Your task to perform on an android device: Go to accessibility settings Image 0: 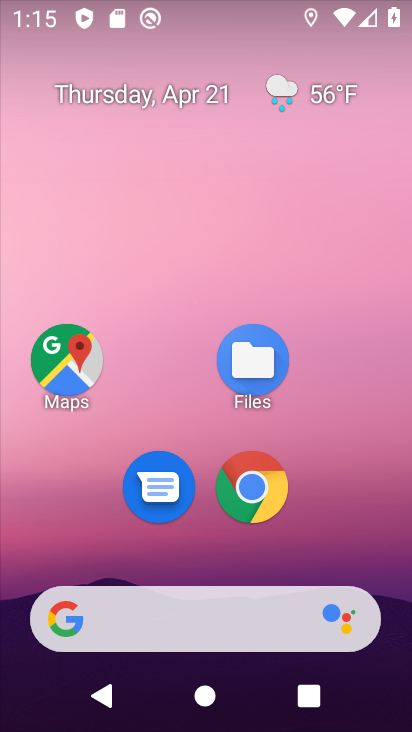
Step 0: drag from (373, 518) to (363, 117)
Your task to perform on an android device: Go to accessibility settings Image 1: 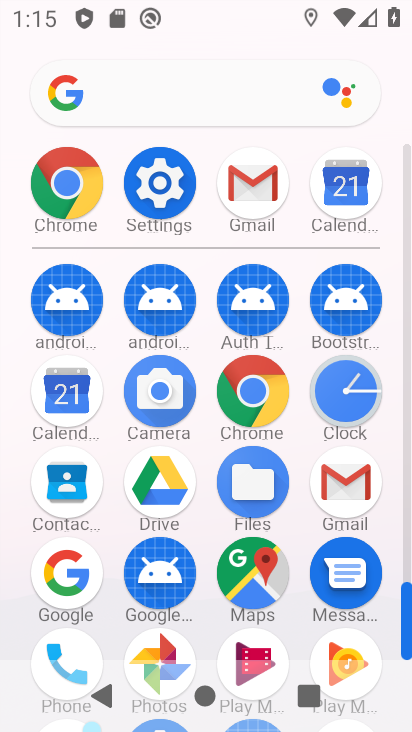
Step 1: drag from (295, 509) to (298, 277)
Your task to perform on an android device: Go to accessibility settings Image 2: 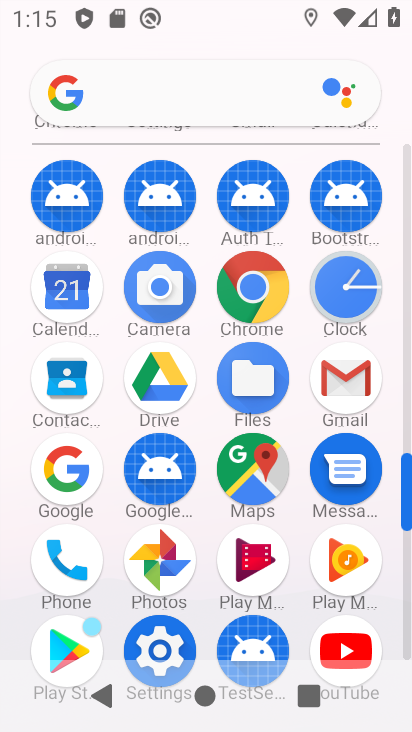
Step 2: click (158, 627)
Your task to perform on an android device: Go to accessibility settings Image 3: 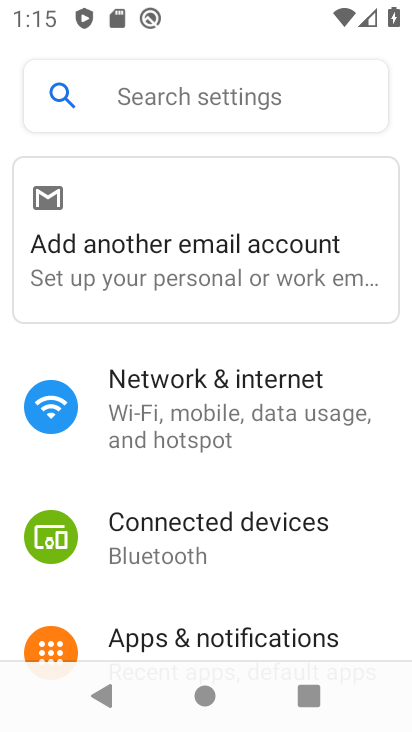
Step 3: drag from (260, 602) to (273, 292)
Your task to perform on an android device: Go to accessibility settings Image 4: 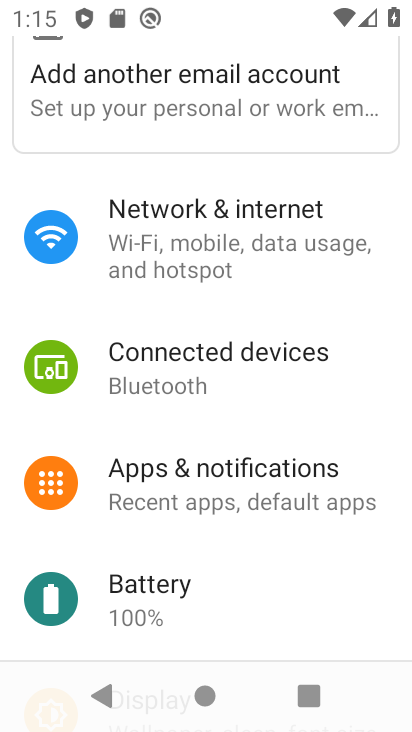
Step 4: drag from (264, 594) to (278, 277)
Your task to perform on an android device: Go to accessibility settings Image 5: 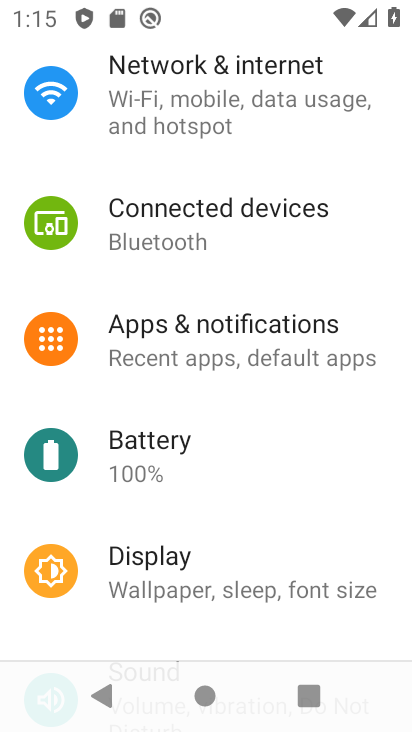
Step 5: drag from (319, 548) to (312, 295)
Your task to perform on an android device: Go to accessibility settings Image 6: 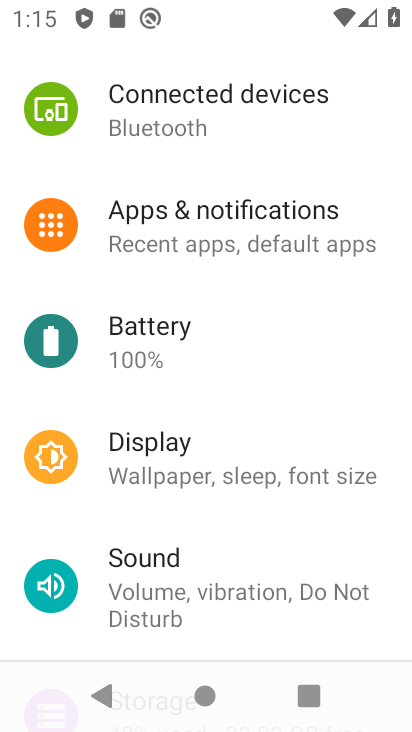
Step 6: drag from (297, 547) to (310, 299)
Your task to perform on an android device: Go to accessibility settings Image 7: 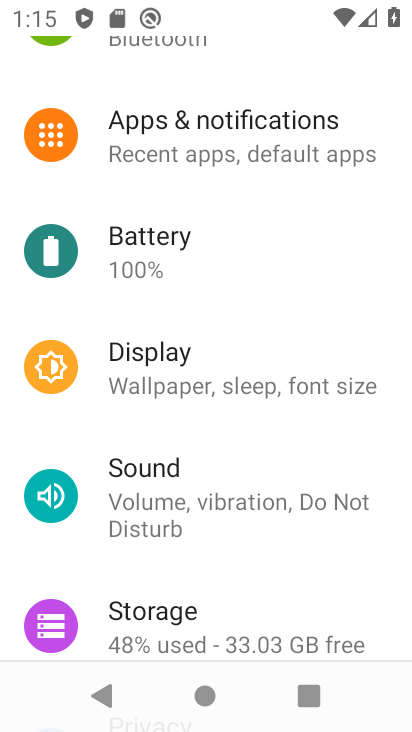
Step 7: drag from (276, 536) to (272, 255)
Your task to perform on an android device: Go to accessibility settings Image 8: 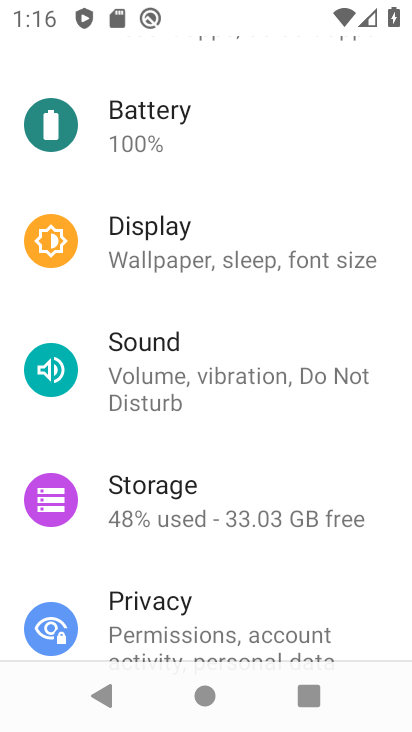
Step 8: drag from (228, 550) to (224, 294)
Your task to perform on an android device: Go to accessibility settings Image 9: 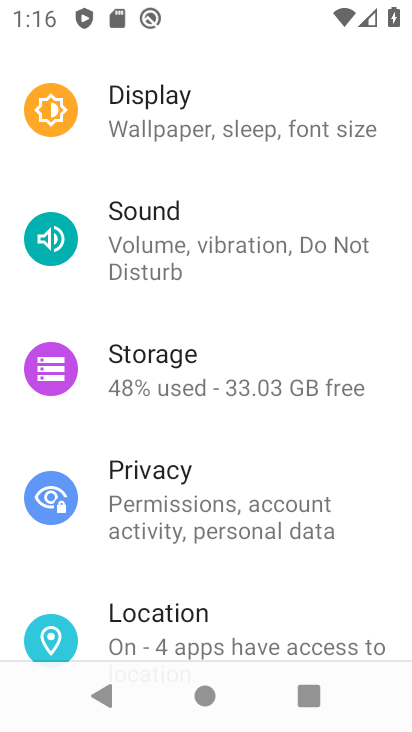
Step 9: drag from (207, 515) to (222, 152)
Your task to perform on an android device: Go to accessibility settings Image 10: 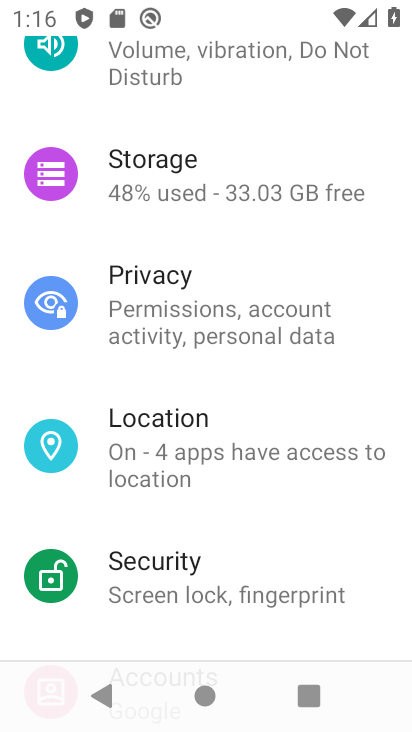
Step 10: drag from (241, 475) to (266, 180)
Your task to perform on an android device: Go to accessibility settings Image 11: 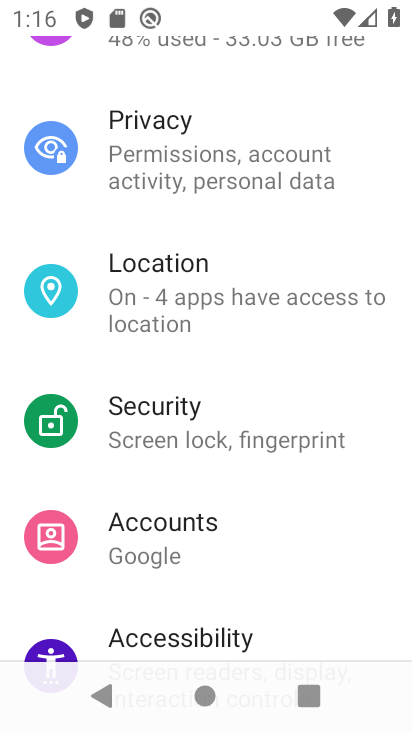
Step 11: click (221, 633)
Your task to perform on an android device: Go to accessibility settings Image 12: 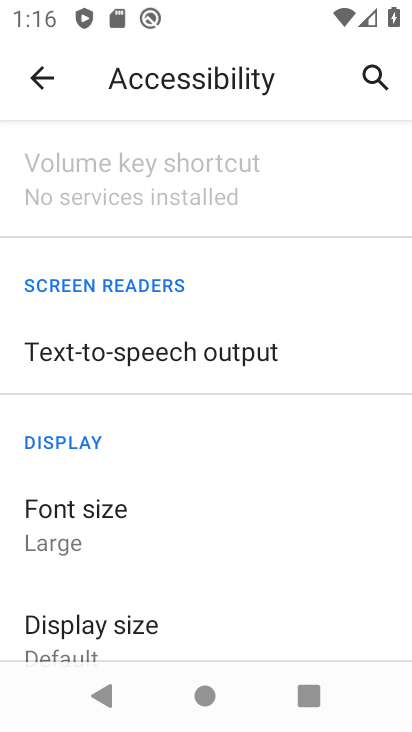
Step 12: task complete